Your task to perform on an android device: Go to Android settings Image 0: 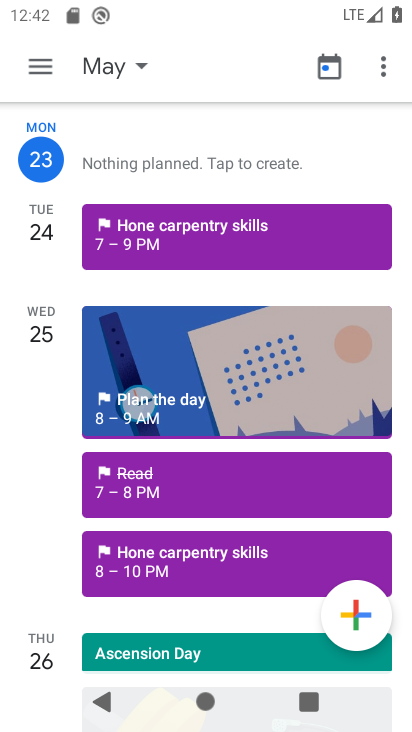
Step 0: press home button
Your task to perform on an android device: Go to Android settings Image 1: 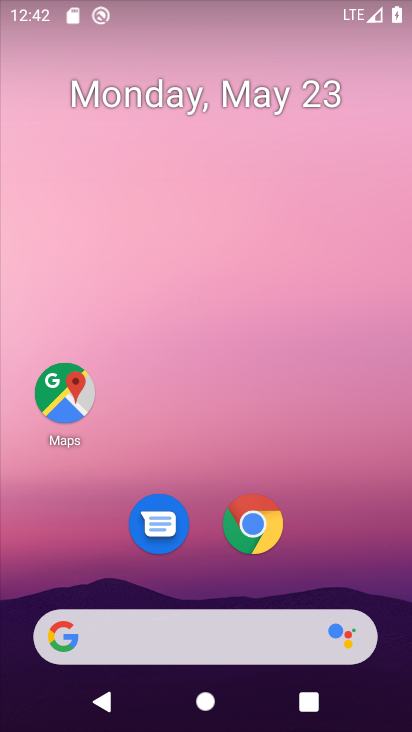
Step 1: drag from (267, 461) to (290, 16)
Your task to perform on an android device: Go to Android settings Image 2: 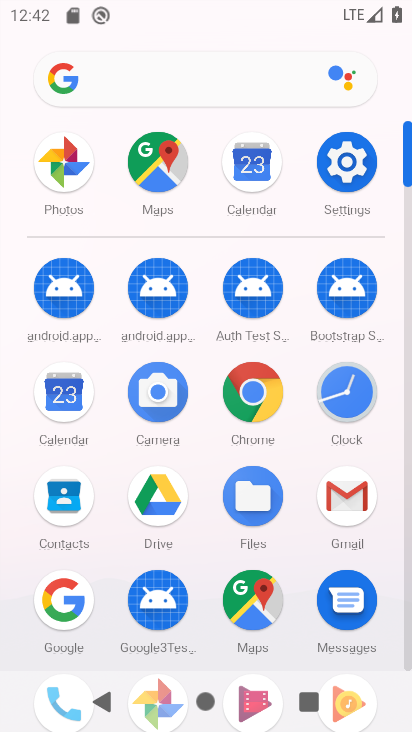
Step 2: click (356, 164)
Your task to perform on an android device: Go to Android settings Image 3: 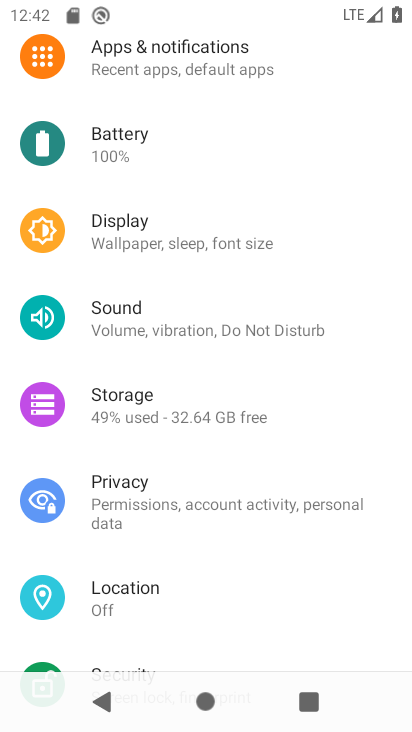
Step 3: drag from (189, 523) to (229, 39)
Your task to perform on an android device: Go to Android settings Image 4: 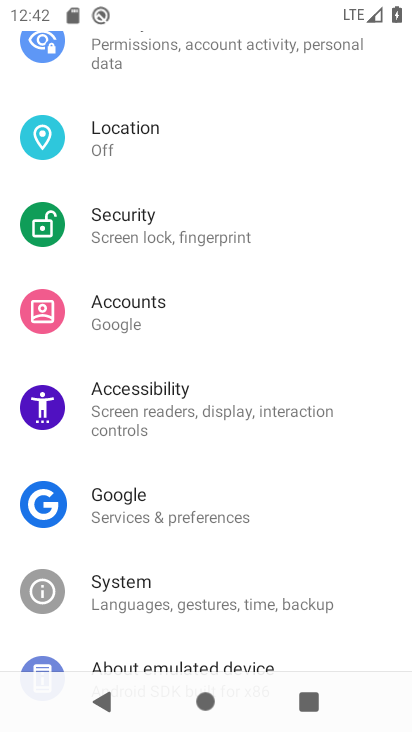
Step 4: drag from (222, 377) to (218, 132)
Your task to perform on an android device: Go to Android settings Image 5: 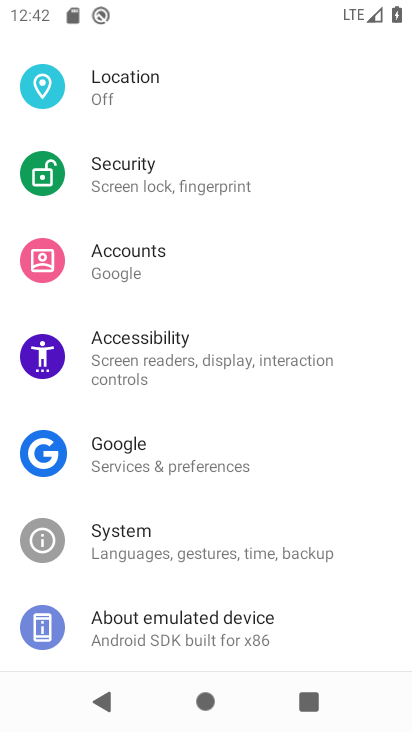
Step 5: click (206, 622)
Your task to perform on an android device: Go to Android settings Image 6: 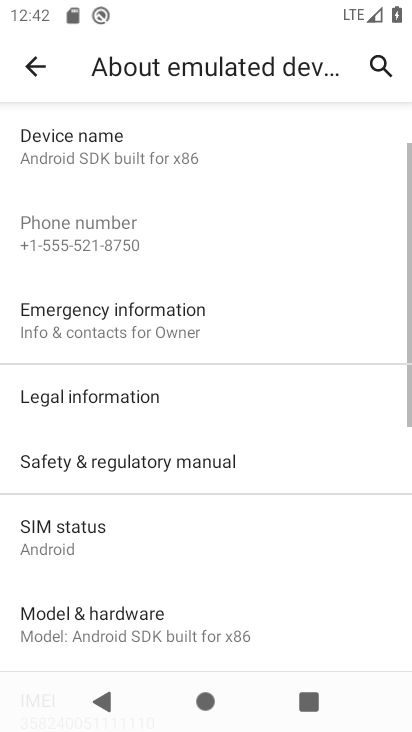
Step 6: task complete